Your task to perform on an android device: add a contact Image 0: 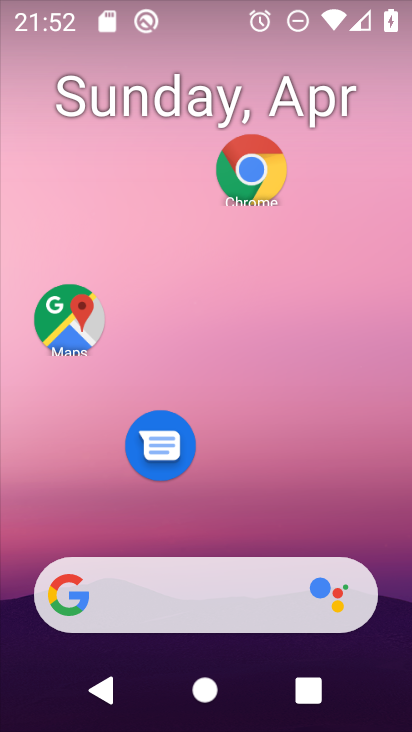
Step 0: drag from (320, 503) to (314, 18)
Your task to perform on an android device: add a contact Image 1: 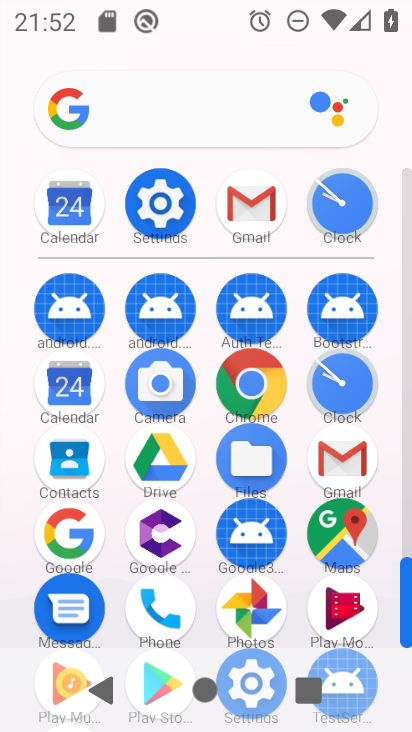
Step 1: click (67, 460)
Your task to perform on an android device: add a contact Image 2: 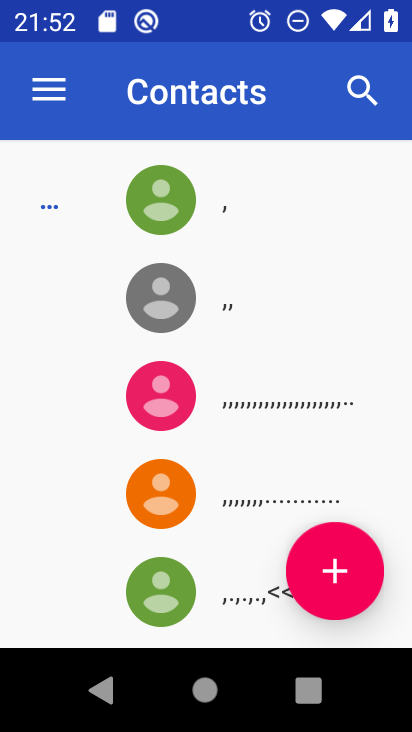
Step 2: click (333, 575)
Your task to perform on an android device: add a contact Image 3: 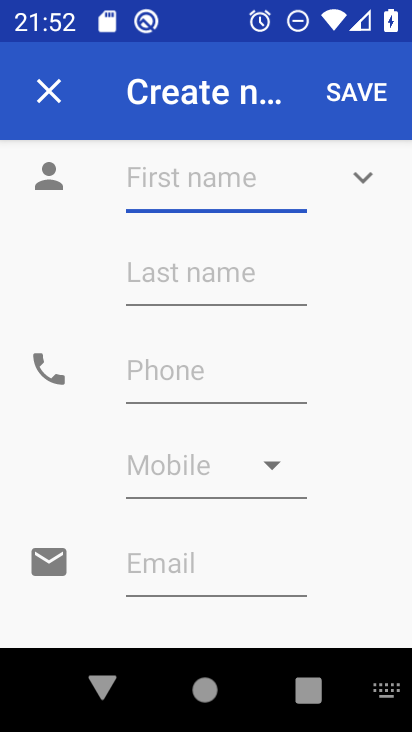
Step 3: type "nhshdhc"
Your task to perform on an android device: add a contact Image 4: 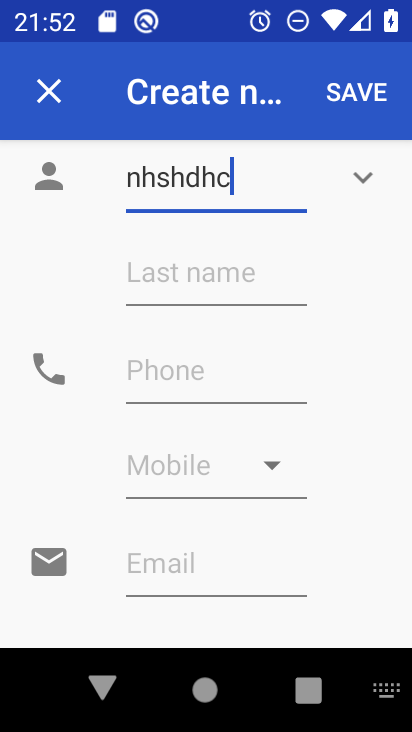
Step 4: click (349, 98)
Your task to perform on an android device: add a contact Image 5: 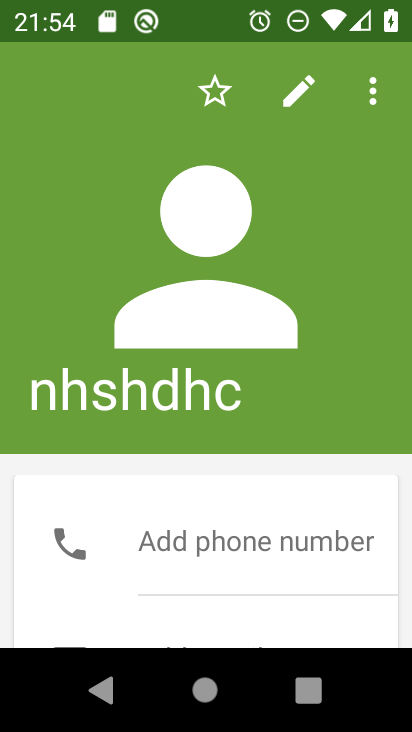
Step 5: task complete